Your task to perform on an android device: Go to internet settings Image 0: 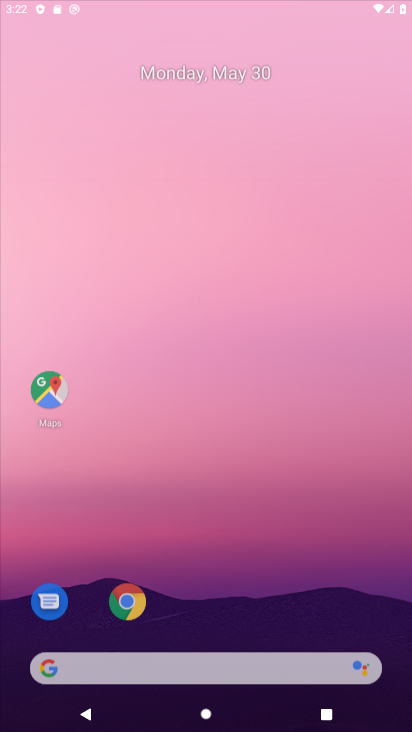
Step 0: drag from (261, 609) to (258, 190)
Your task to perform on an android device: Go to internet settings Image 1: 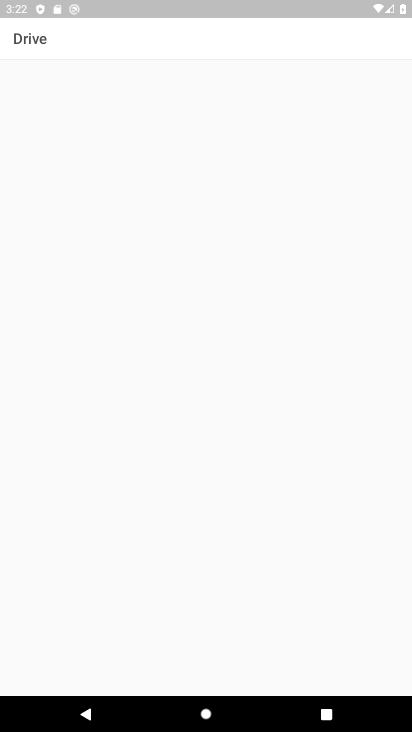
Step 1: press home button
Your task to perform on an android device: Go to internet settings Image 2: 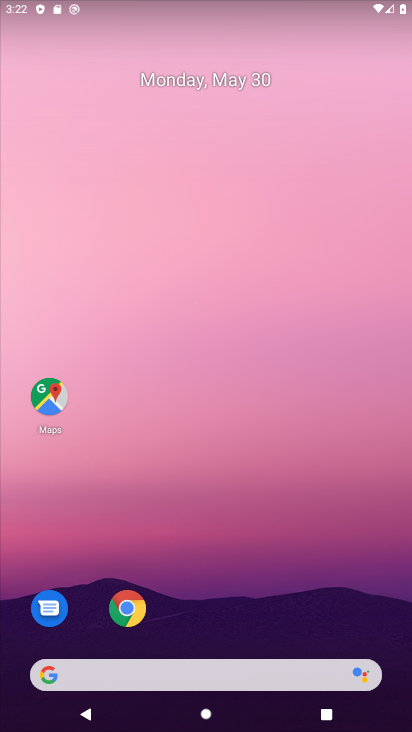
Step 2: drag from (235, 647) to (237, 237)
Your task to perform on an android device: Go to internet settings Image 3: 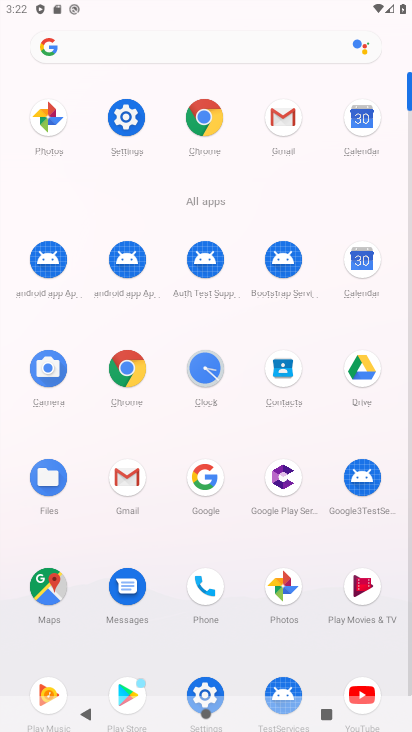
Step 3: click (126, 108)
Your task to perform on an android device: Go to internet settings Image 4: 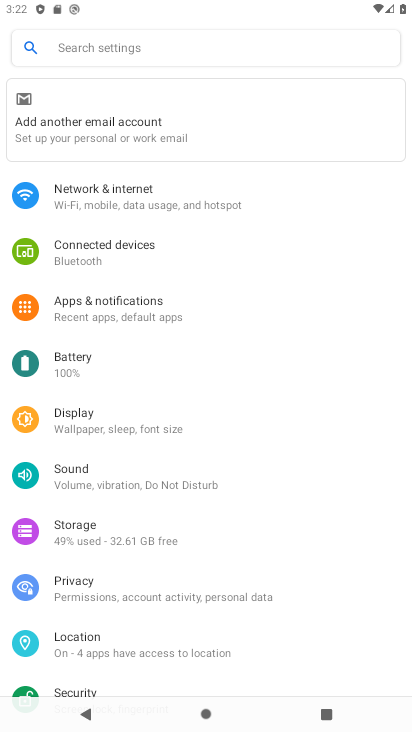
Step 4: click (156, 201)
Your task to perform on an android device: Go to internet settings Image 5: 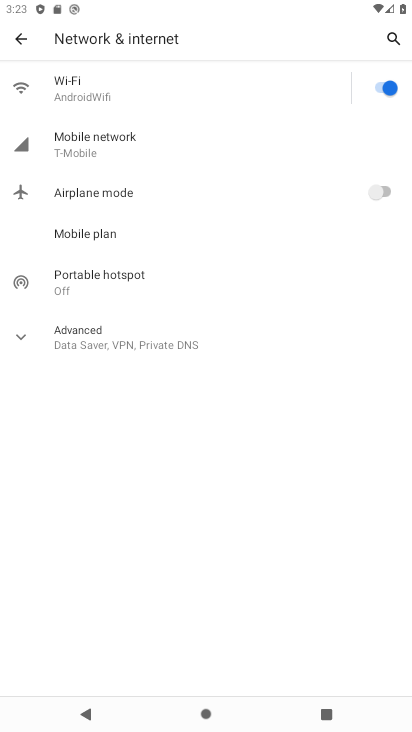
Step 5: task complete